Your task to perform on an android device: Add "asus rog" to the cart on newegg.com Image 0: 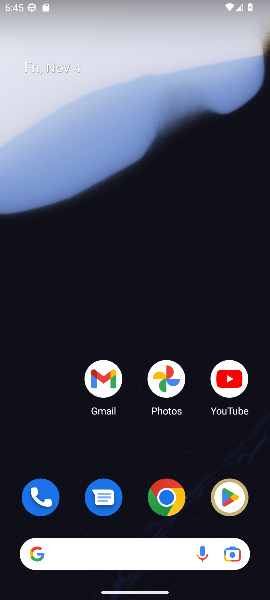
Step 0: click (161, 502)
Your task to perform on an android device: Add "asus rog" to the cart on newegg.com Image 1: 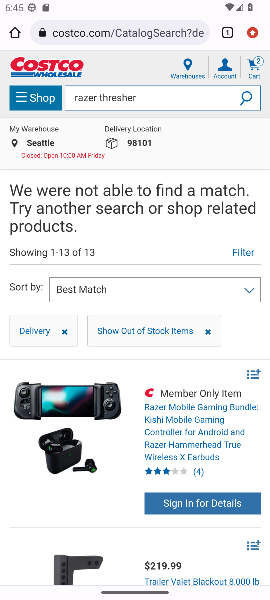
Step 1: click (126, 33)
Your task to perform on an android device: Add "asus rog" to the cart on newegg.com Image 2: 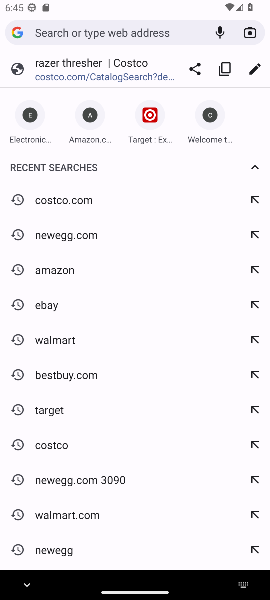
Step 2: click (61, 241)
Your task to perform on an android device: Add "asus rog" to the cart on newegg.com Image 3: 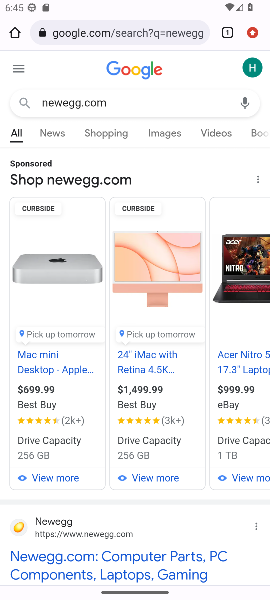
Step 3: drag from (86, 499) to (85, 233)
Your task to perform on an android device: Add "asus rog" to the cart on newegg.com Image 4: 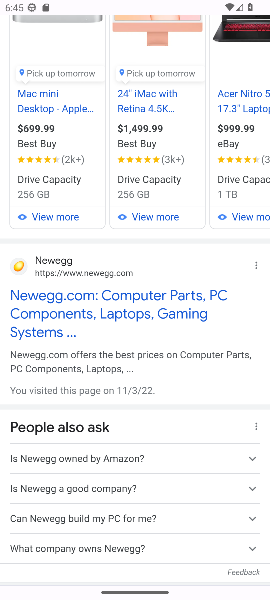
Step 4: click (65, 288)
Your task to perform on an android device: Add "asus rog" to the cart on newegg.com Image 5: 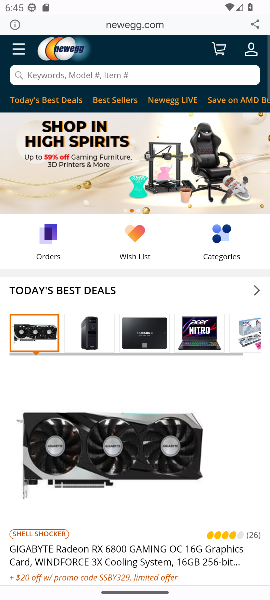
Step 5: click (64, 80)
Your task to perform on an android device: Add "asus rog" to the cart on newegg.com Image 6: 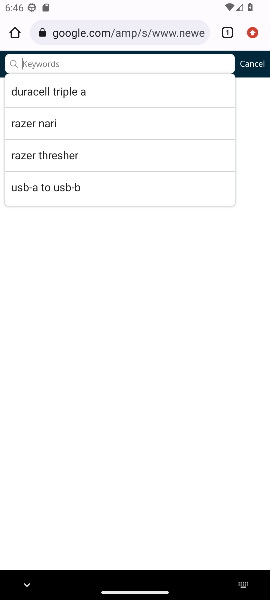
Step 6: type "asus rog"
Your task to perform on an android device: Add "asus rog" to the cart on newegg.com Image 7: 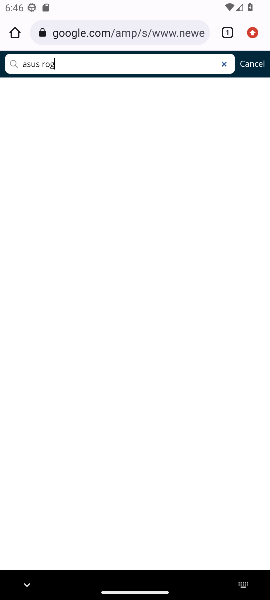
Step 7: click (8, 64)
Your task to perform on an android device: Add "asus rog" to the cart on newegg.com Image 8: 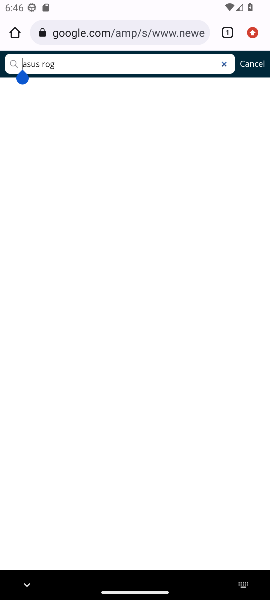
Step 8: task complete